Your task to perform on an android device: toggle notification dots Image 0: 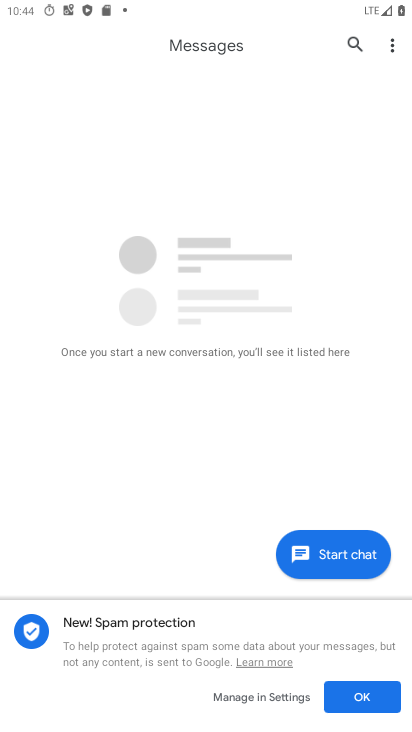
Step 0: press home button
Your task to perform on an android device: toggle notification dots Image 1: 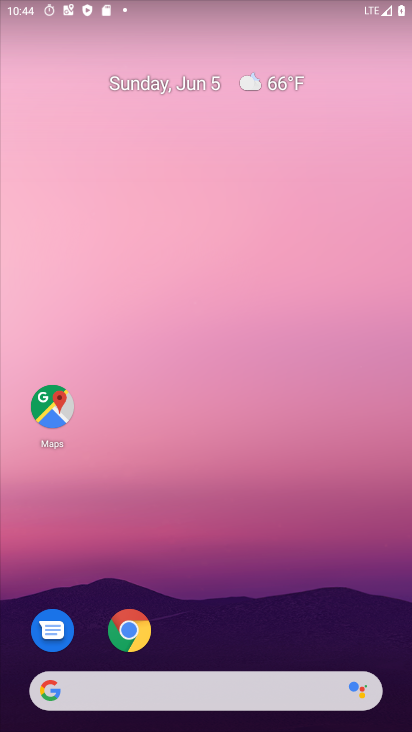
Step 1: drag from (213, 718) to (220, 2)
Your task to perform on an android device: toggle notification dots Image 2: 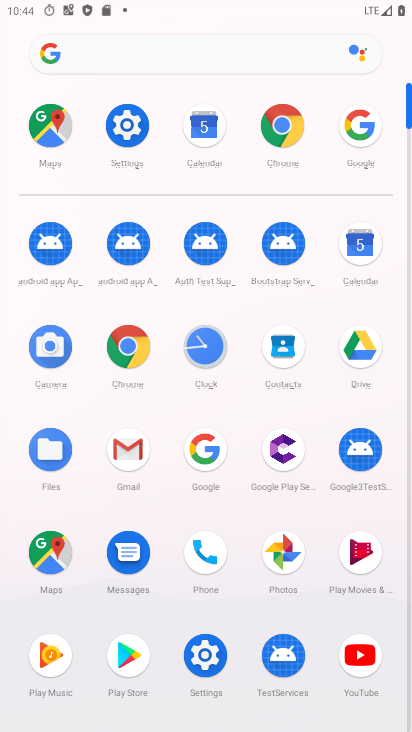
Step 2: click (124, 116)
Your task to perform on an android device: toggle notification dots Image 3: 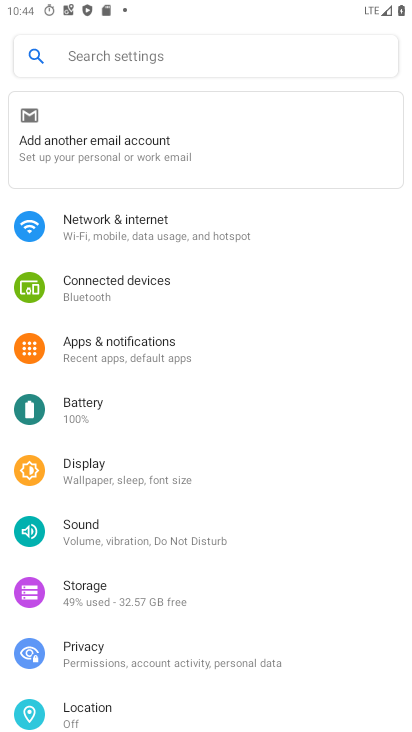
Step 3: click (131, 350)
Your task to perform on an android device: toggle notification dots Image 4: 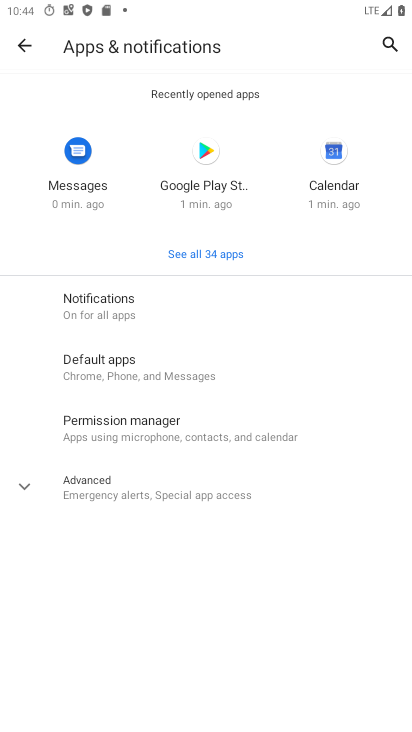
Step 4: click (81, 313)
Your task to perform on an android device: toggle notification dots Image 5: 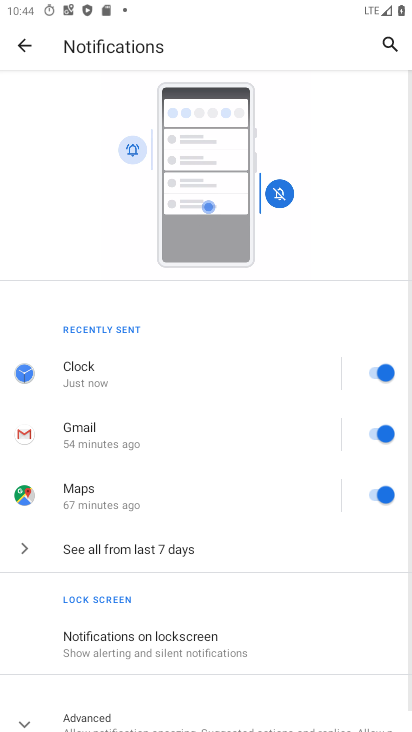
Step 5: drag from (185, 689) to (152, 312)
Your task to perform on an android device: toggle notification dots Image 6: 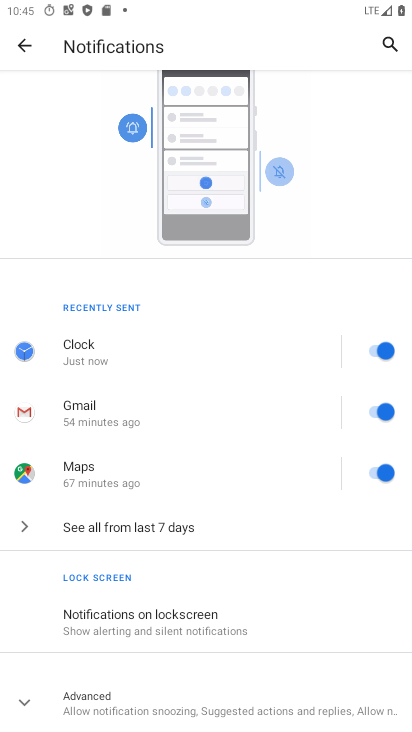
Step 6: click (142, 706)
Your task to perform on an android device: toggle notification dots Image 7: 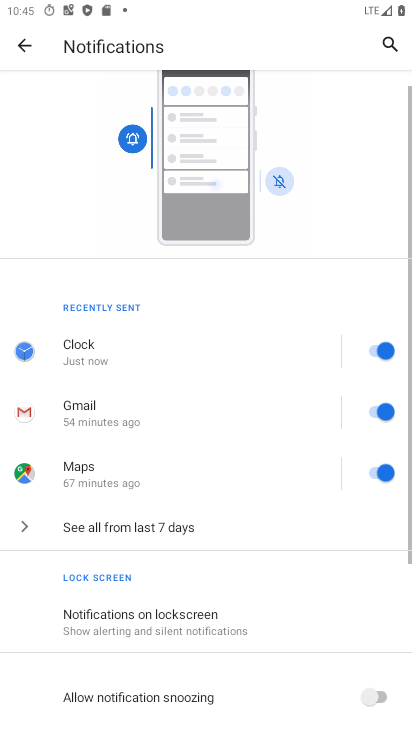
Step 7: drag from (238, 669) to (226, 294)
Your task to perform on an android device: toggle notification dots Image 8: 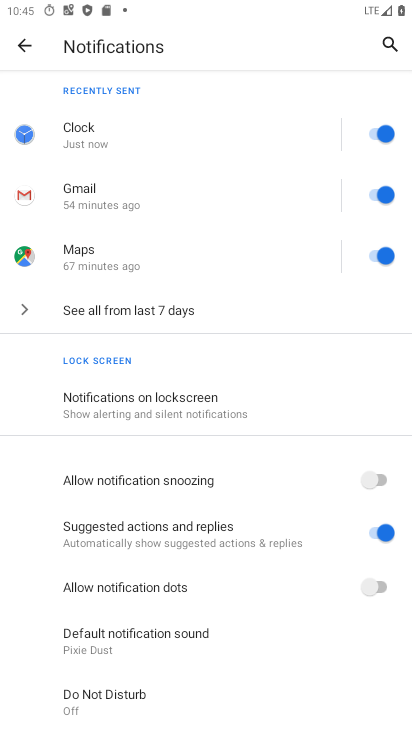
Step 8: click (378, 584)
Your task to perform on an android device: toggle notification dots Image 9: 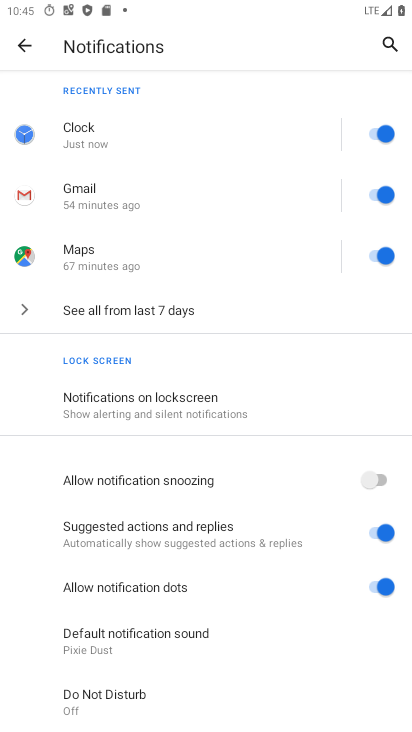
Step 9: task complete